Your task to perform on an android device: clear all cookies in the chrome app Image 0: 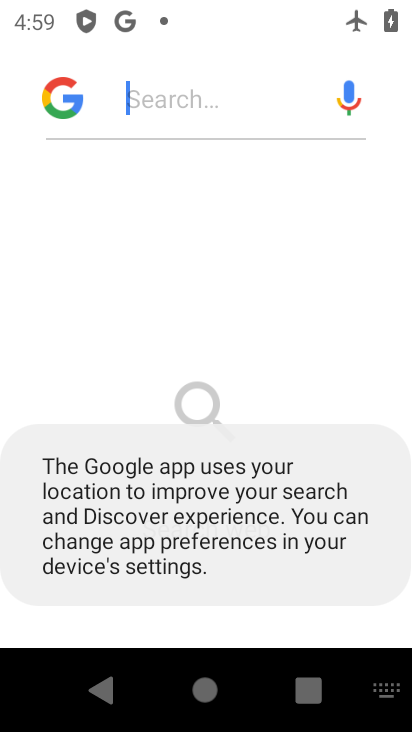
Step 0: press home button
Your task to perform on an android device: clear all cookies in the chrome app Image 1: 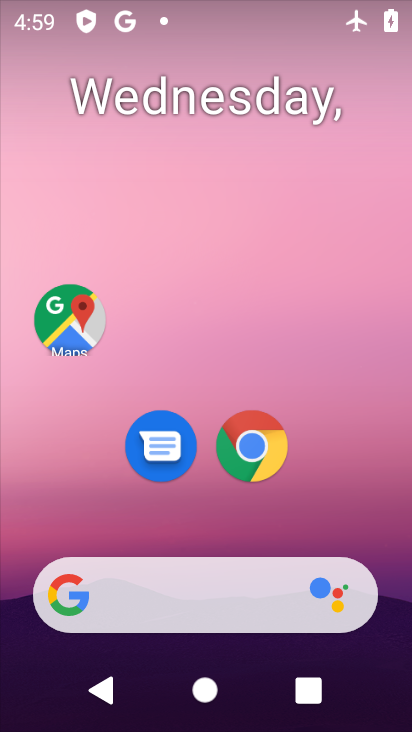
Step 1: click (252, 453)
Your task to perform on an android device: clear all cookies in the chrome app Image 2: 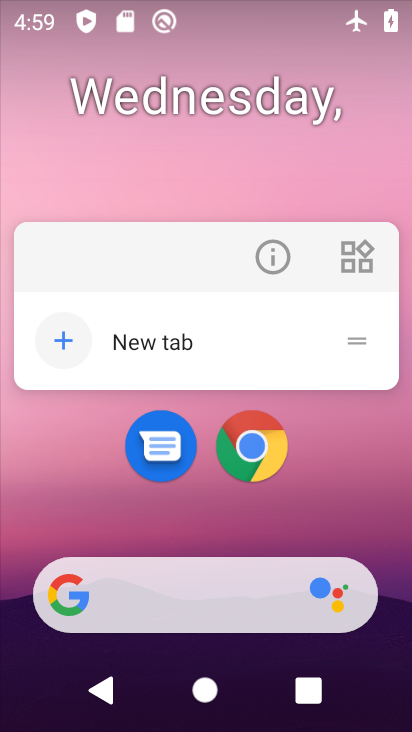
Step 2: click (244, 442)
Your task to perform on an android device: clear all cookies in the chrome app Image 3: 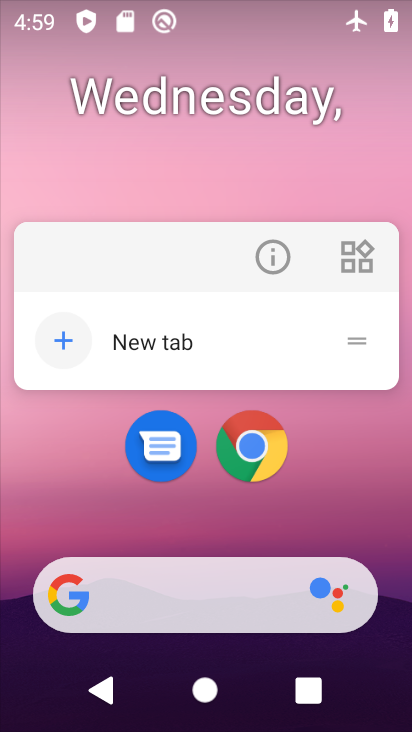
Step 3: click (244, 442)
Your task to perform on an android device: clear all cookies in the chrome app Image 4: 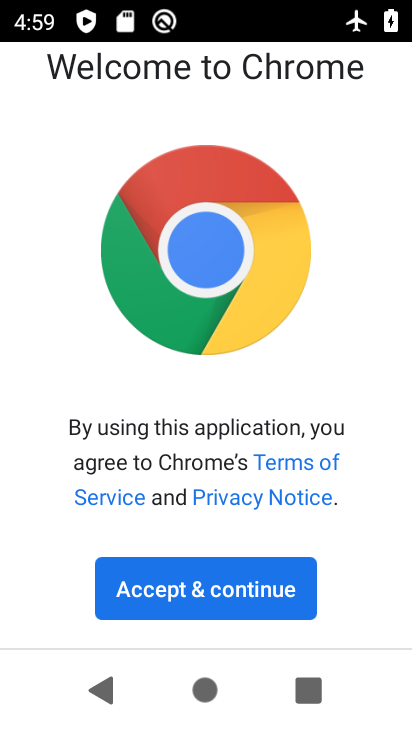
Step 4: click (192, 593)
Your task to perform on an android device: clear all cookies in the chrome app Image 5: 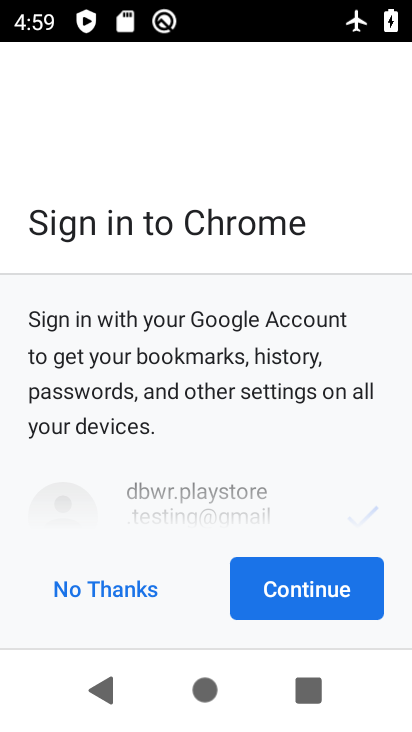
Step 5: click (295, 594)
Your task to perform on an android device: clear all cookies in the chrome app Image 6: 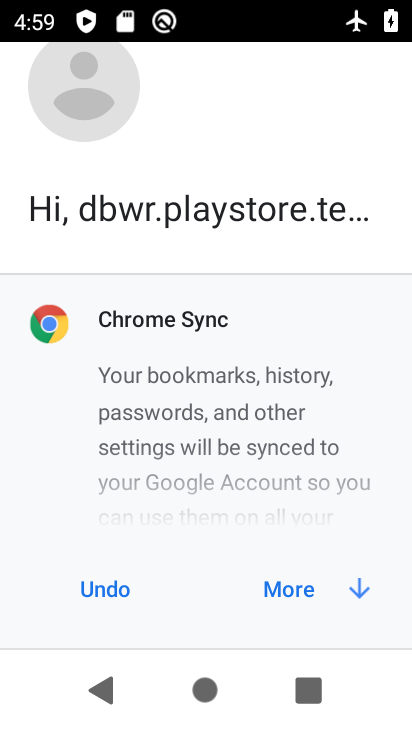
Step 6: click (323, 601)
Your task to perform on an android device: clear all cookies in the chrome app Image 7: 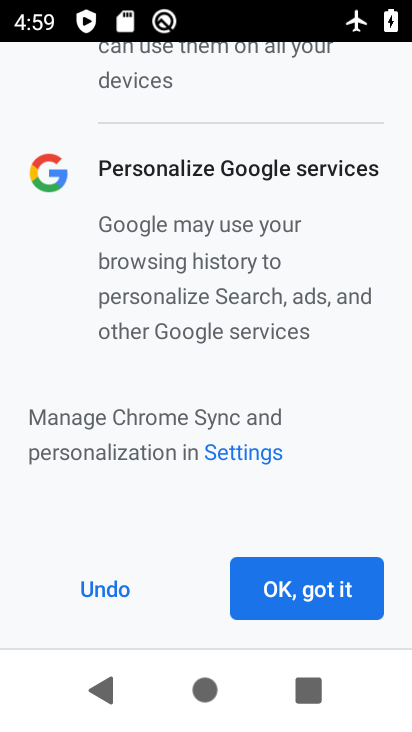
Step 7: click (323, 601)
Your task to perform on an android device: clear all cookies in the chrome app Image 8: 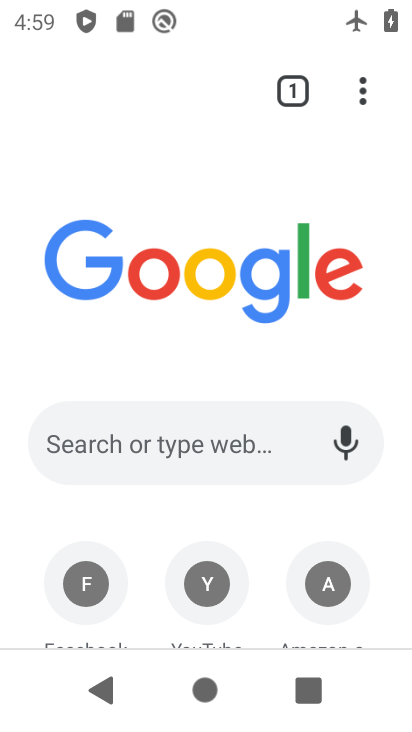
Step 8: click (351, 83)
Your task to perform on an android device: clear all cookies in the chrome app Image 9: 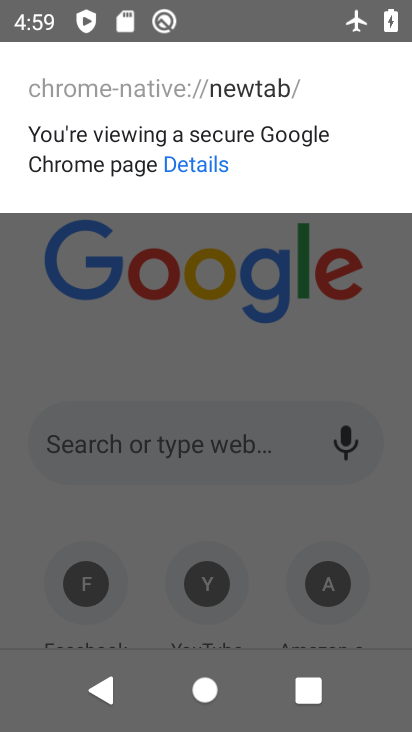
Step 9: click (407, 432)
Your task to perform on an android device: clear all cookies in the chrome app Image 10: 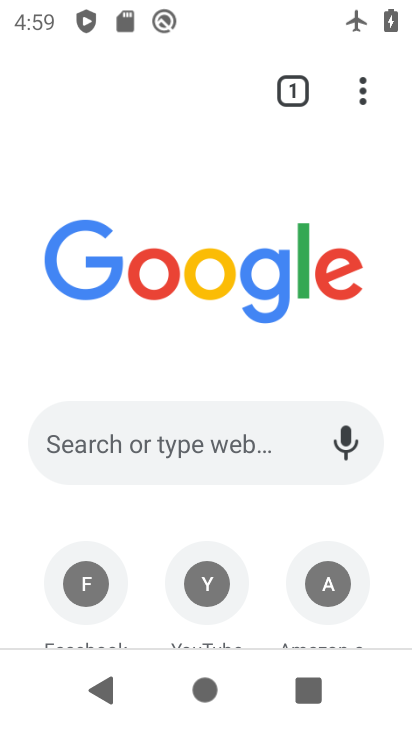
Step 10: click (353, 117)
Your task to perform on an android device: clear all cookies in the chrome app Image 11: 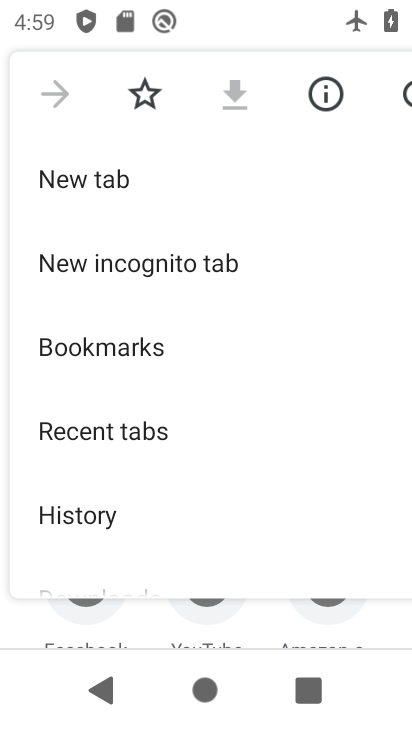
Step 11: click (85, 510)
Your task to perform on an android device: clear all cookies in the chrome app Image 12: 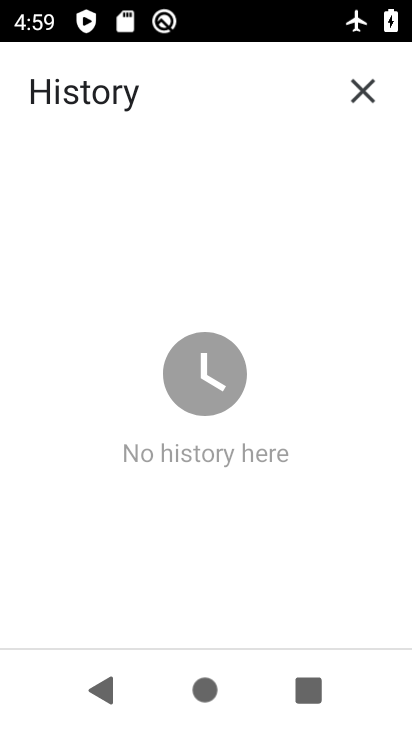
Step 12: task complete